Your task to perform on an android device: What's the weather going to be tomorrow? Image 0: 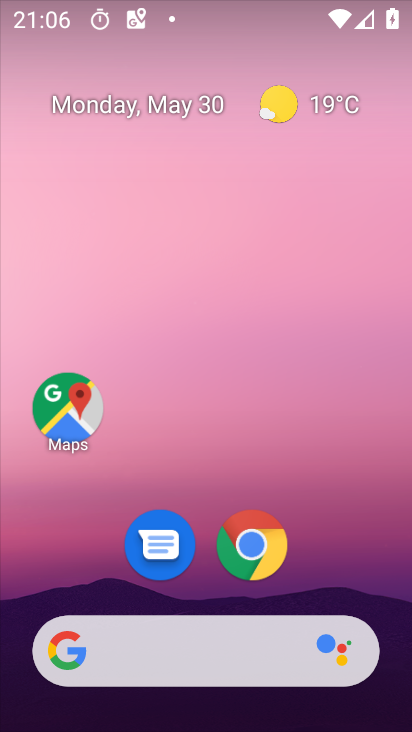
Step 0: click (316, 101)
Your task to perform on an android device: What's the weather going to be tomorrow? Image 1: 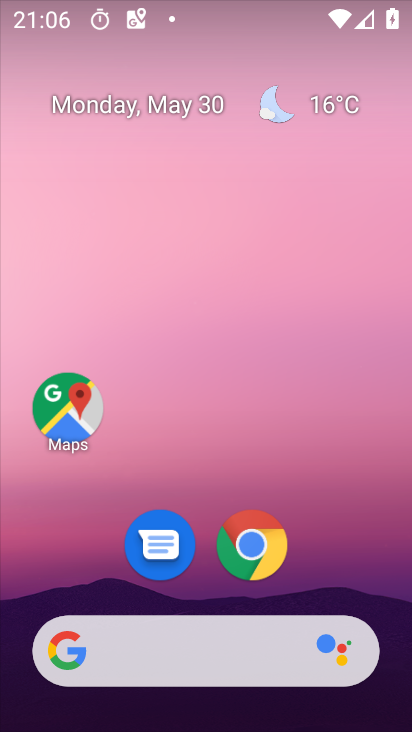
Step 1: click (284, 105)
Your task to perform on an android device: What's the weather going to be tomorrow? Image 2: 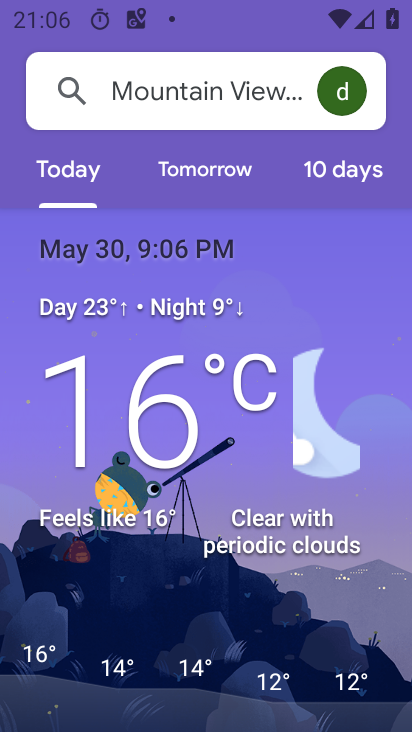
Step 2: click (228, 175)
Your task to perform on an android device: What's the weather going to be tomorrow? Image 3: 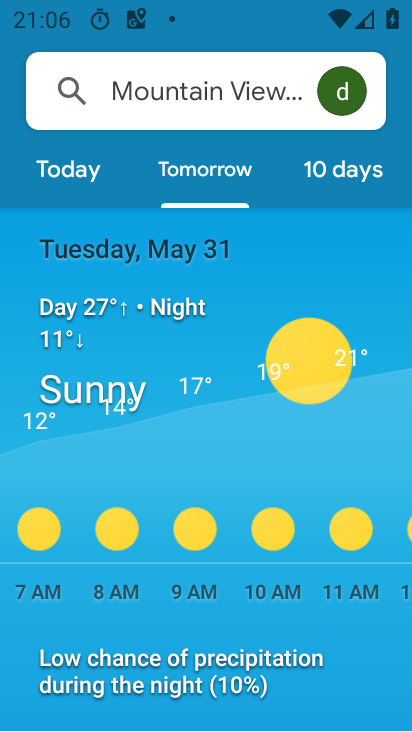
Step 3: task complete